Your task to perform on an android device: open app "Microsoft Excel" (install if not already installed), go to login, and select forgot password Image 0: 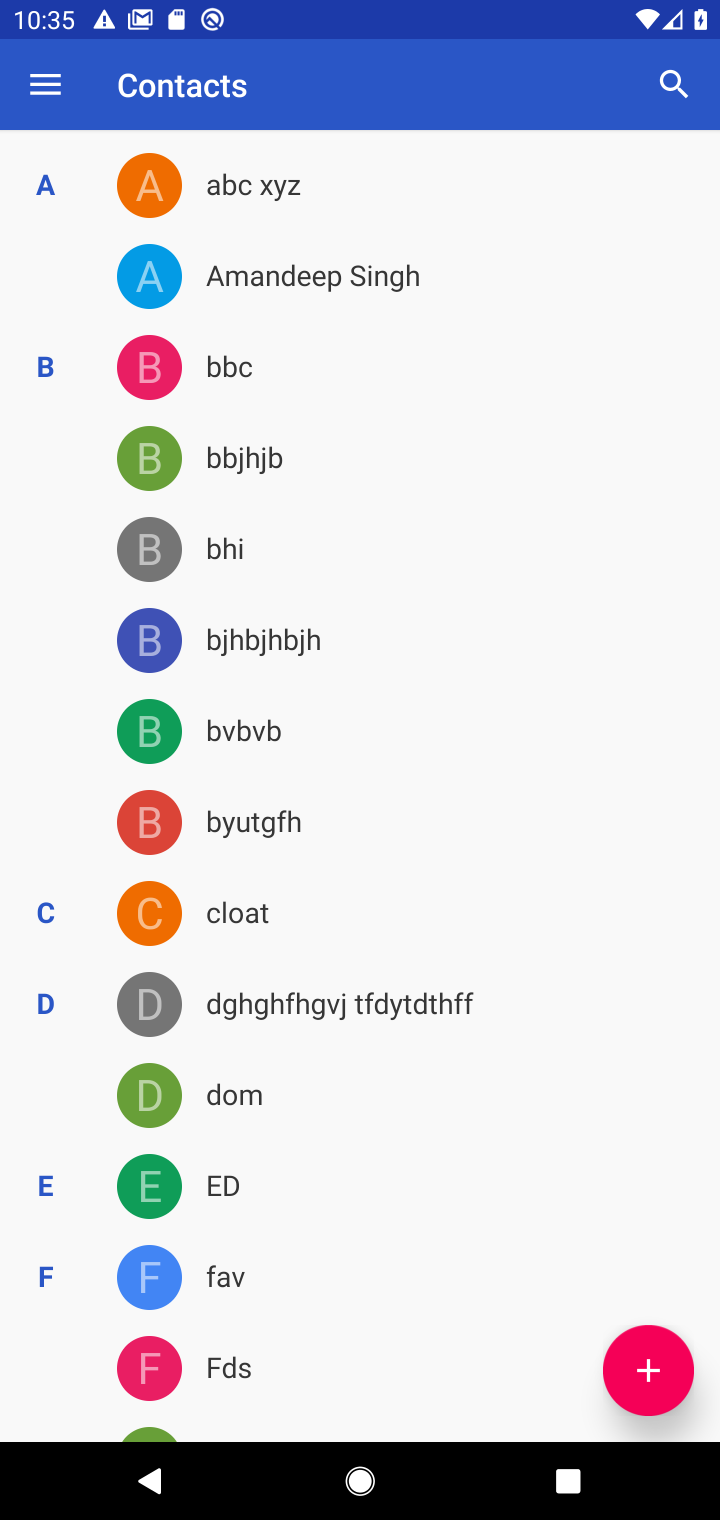
Step 0: press home button
Your task to perform on an android device: open app "Microsoft Excel" (install if not already installed), go to login, and select forgot password Image 1: 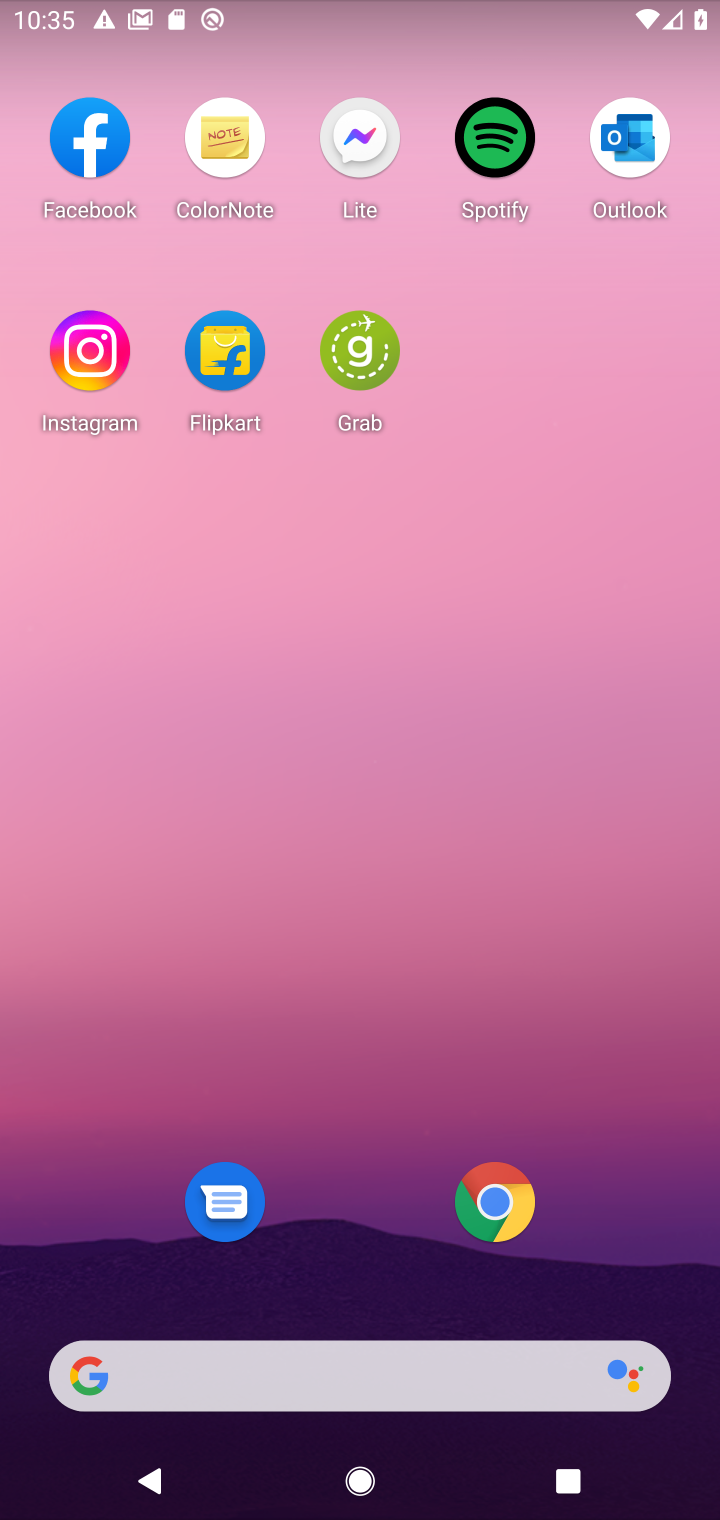
Step 1: drag from (396, 1135) to (368, 20)
Your task to perform on an android device: open app "Microsoft Excel" (install if not already installed), go to login, and select forgot password Image 2: 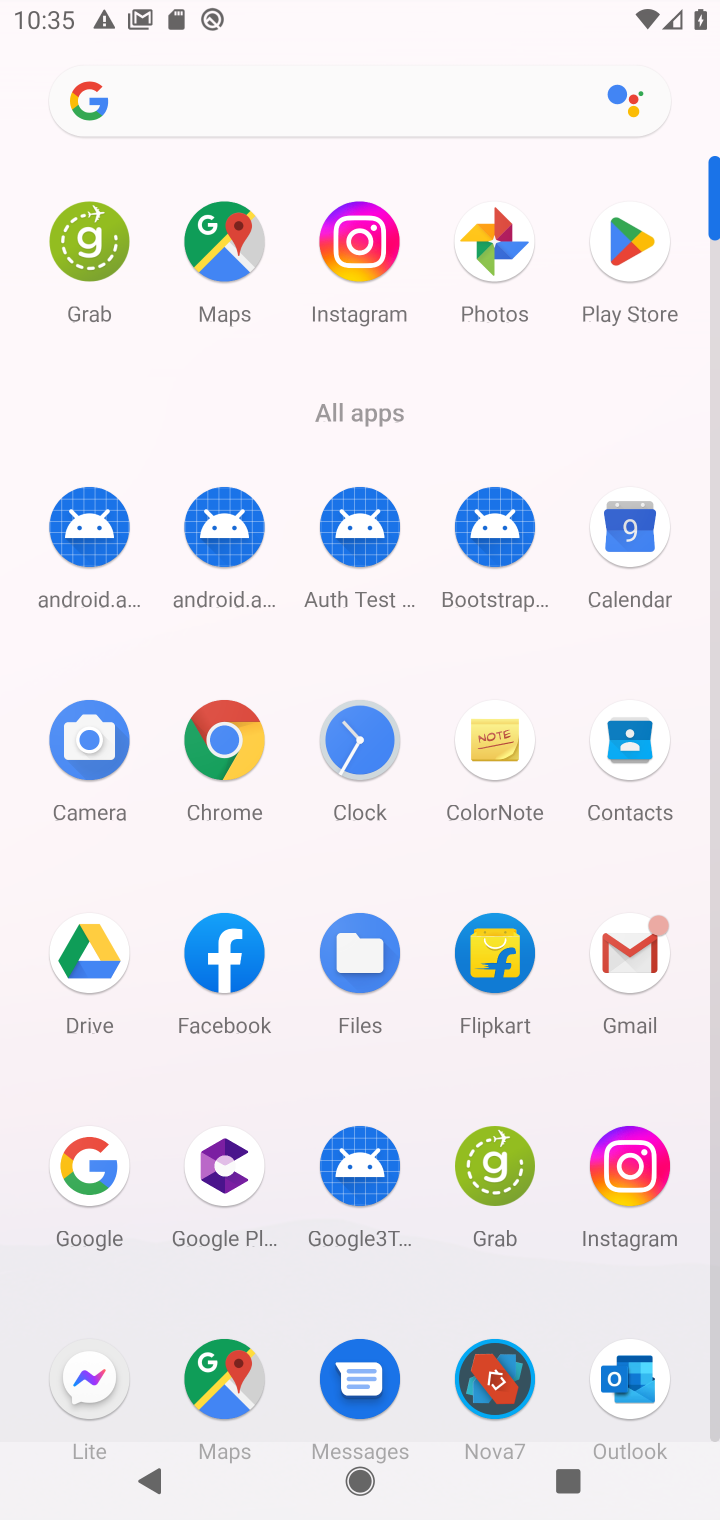
Step 2: click (615, 255)
Your task to perform on an android device: open app "Microsoft Excel" (install if not already installed), go to login, and select forgot password Image 3: 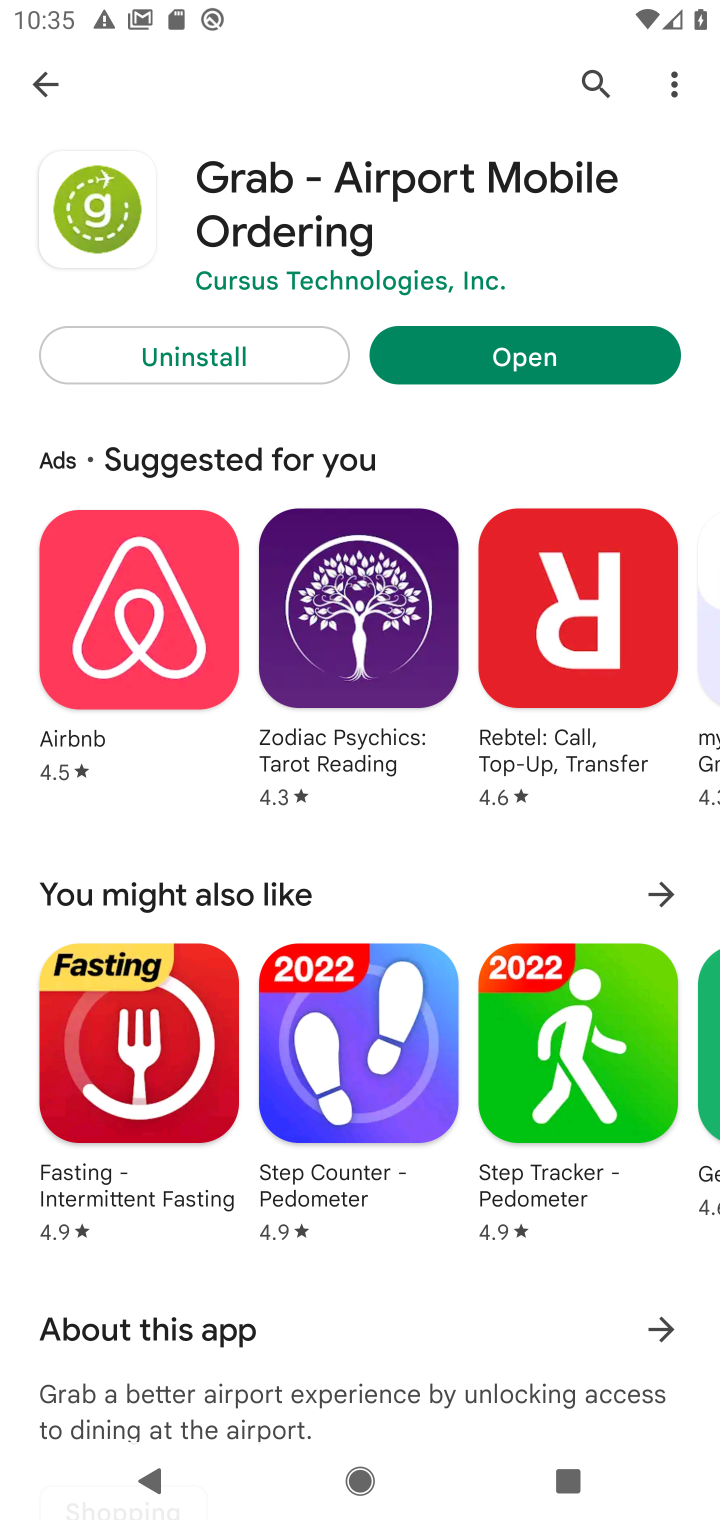
Step 3: click (588, 80)
Your task to perform on an android device: open app "Microsoft Excel" (install if not already installed), go to login, and select forgot password Image 4: 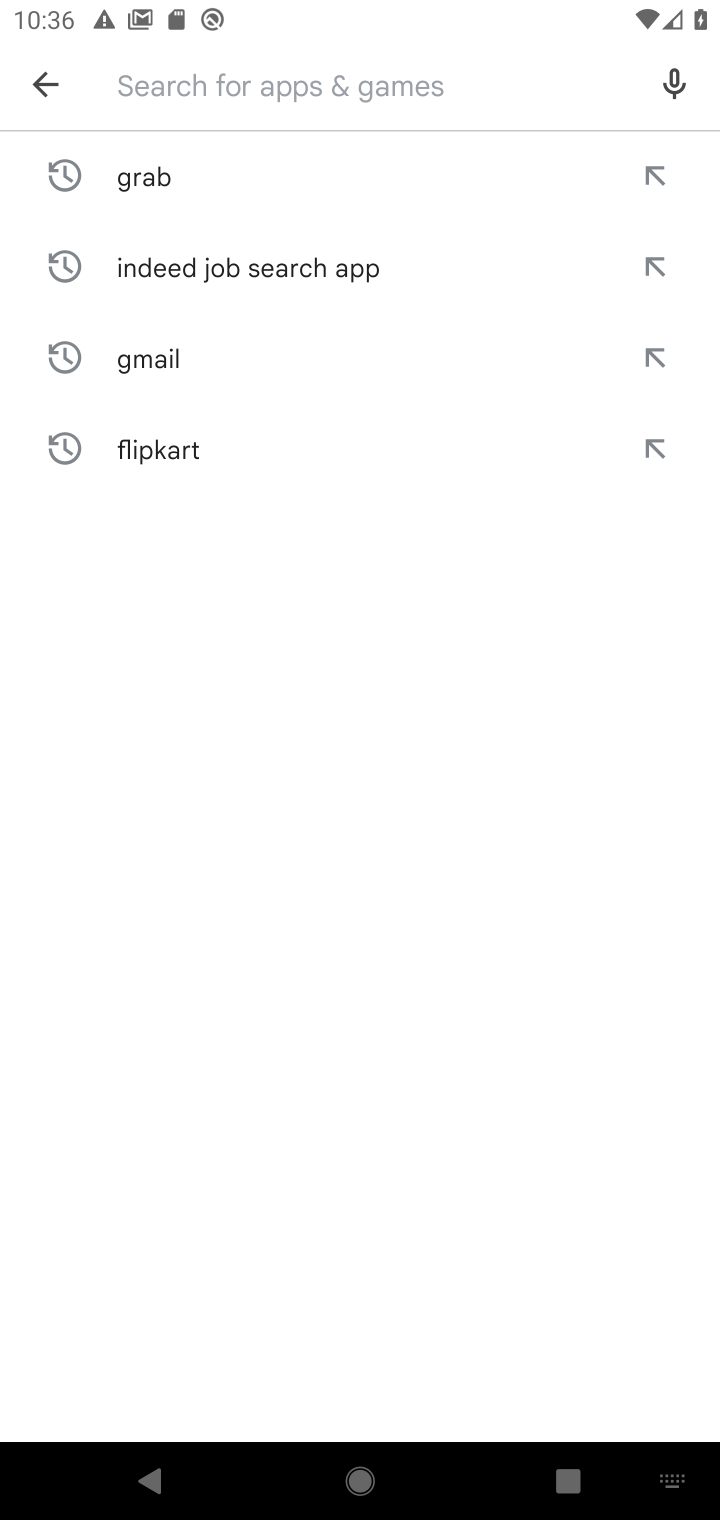
Step 4: type "microsoft excel"
Your task to perform on an android device: open app "Microsoft Excel" (install if not already installed), go to login, and select forgot password Image 5: 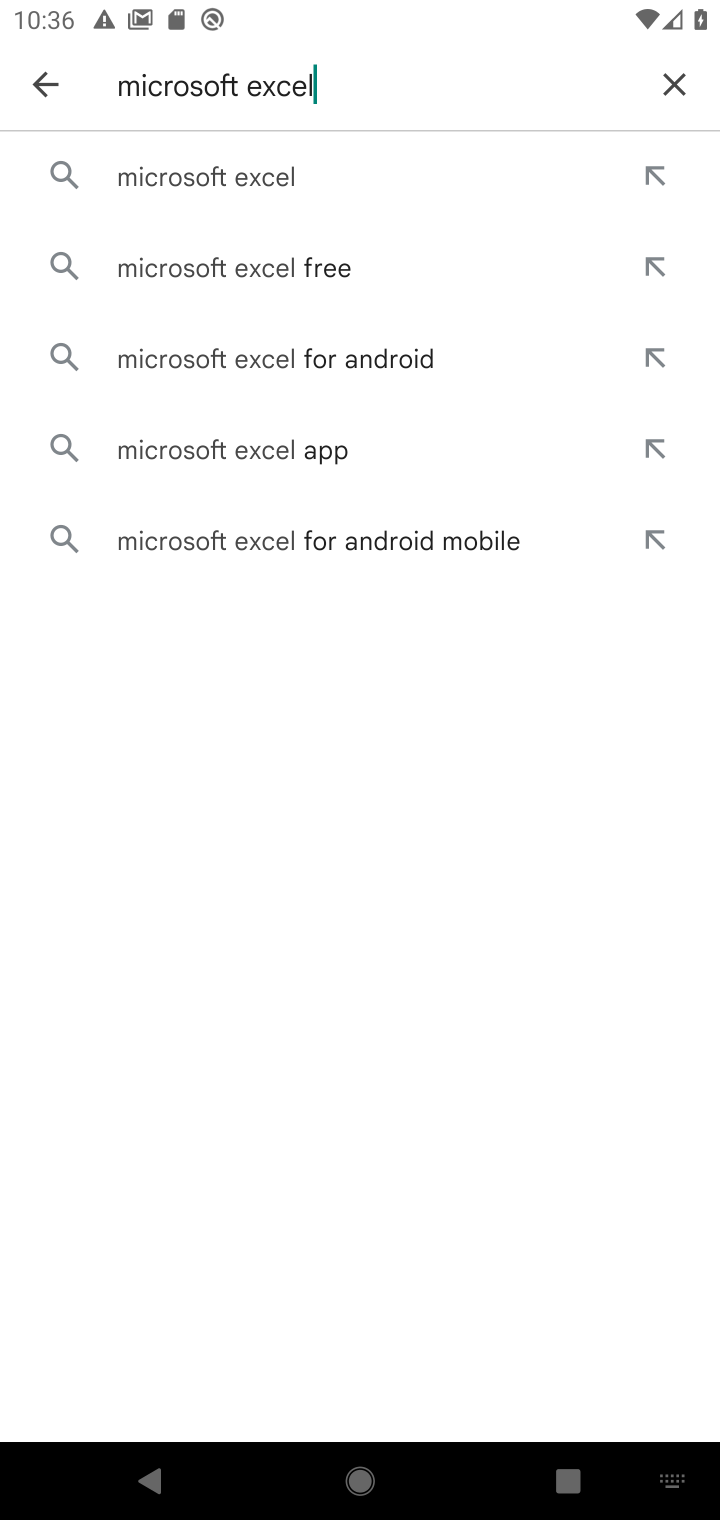
Step 5: click (215, 187)
Your task to perform on an android device: open app "Microsoft Excel" (install if not already installed), go to login, and select forgot password Image 6: 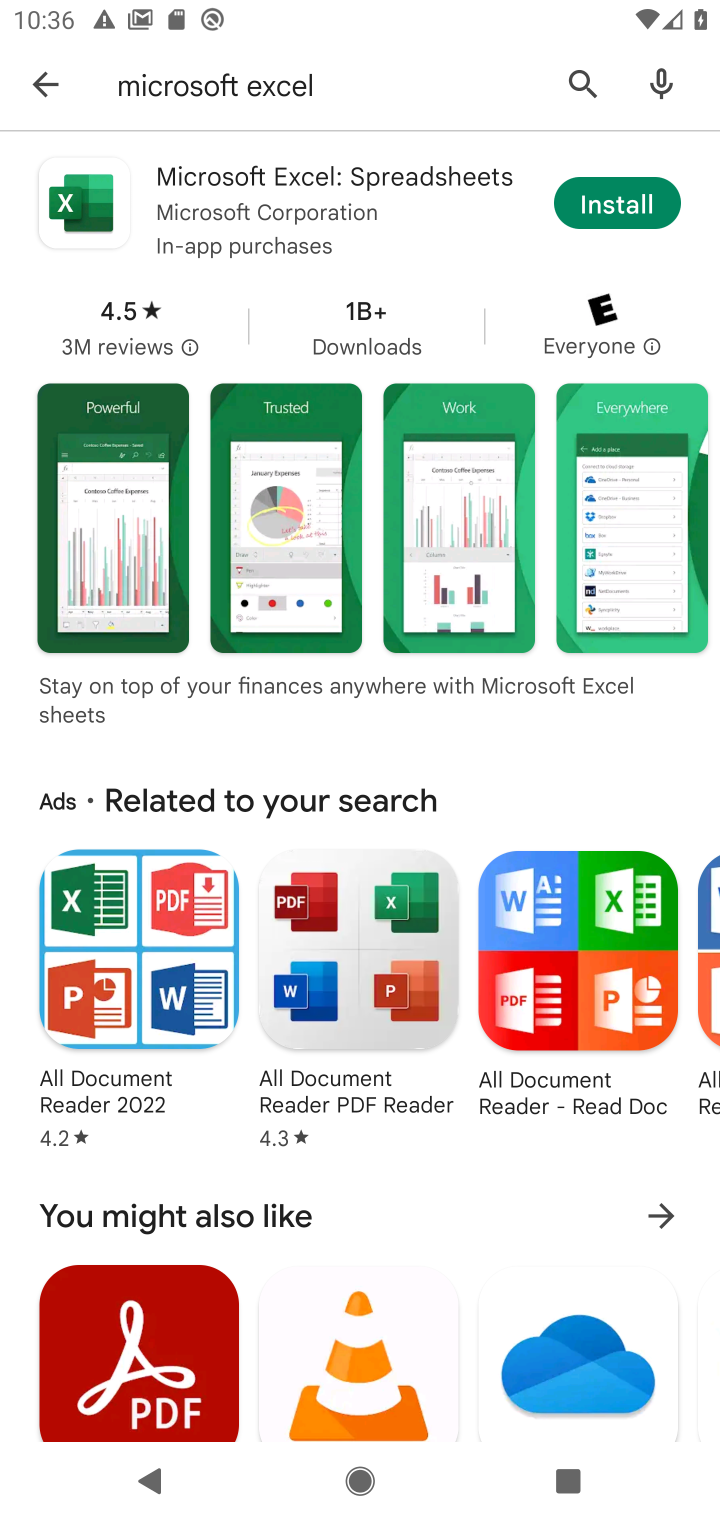
Step 6: click (592, 201)
Your task to perform on an android device: open app "Microsoft Excel" (install if not already installed), go to login, and select forgot password Image 7: 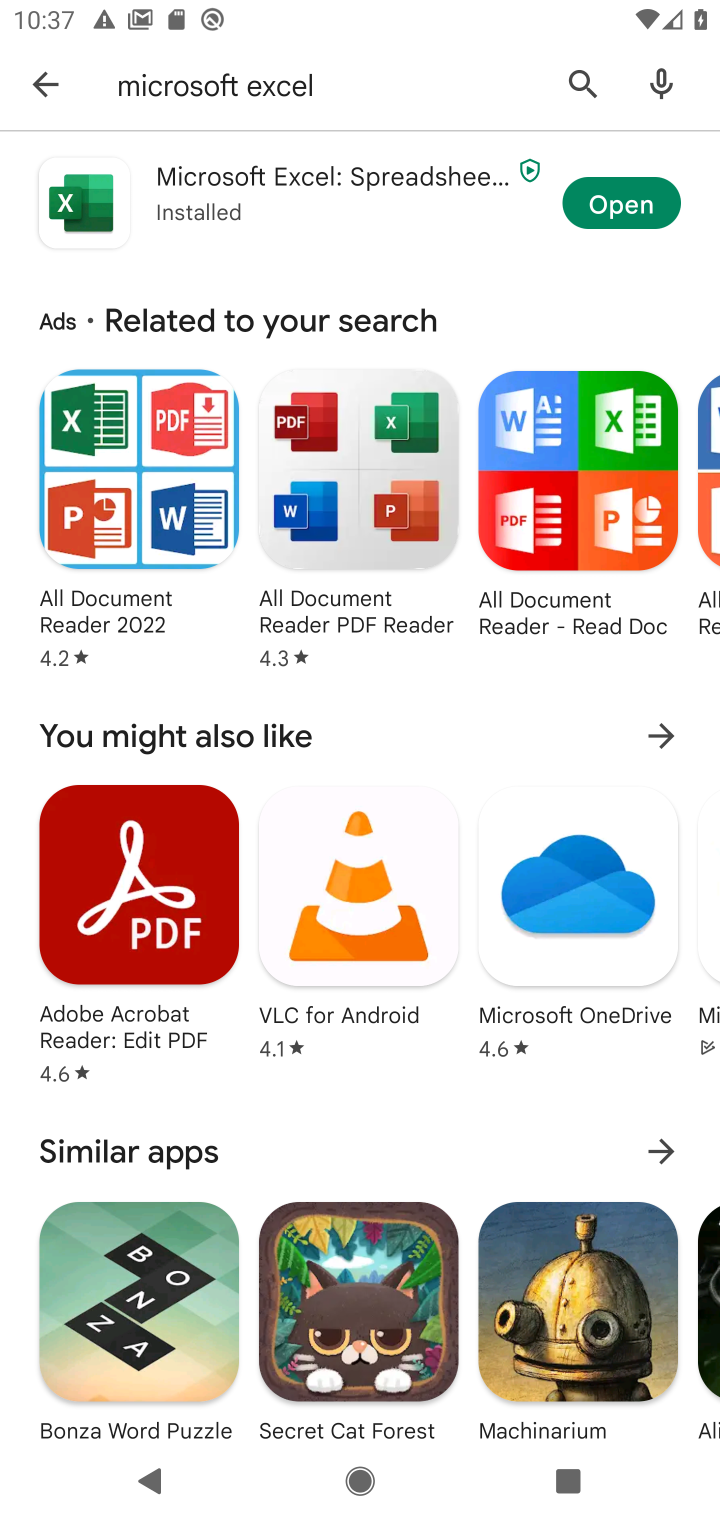
Step 7: click (635, 201)
Your task to perform on an android device: open app "Microsoft Excel" (install if not already installed), go to login, and select forgot password Image 8: 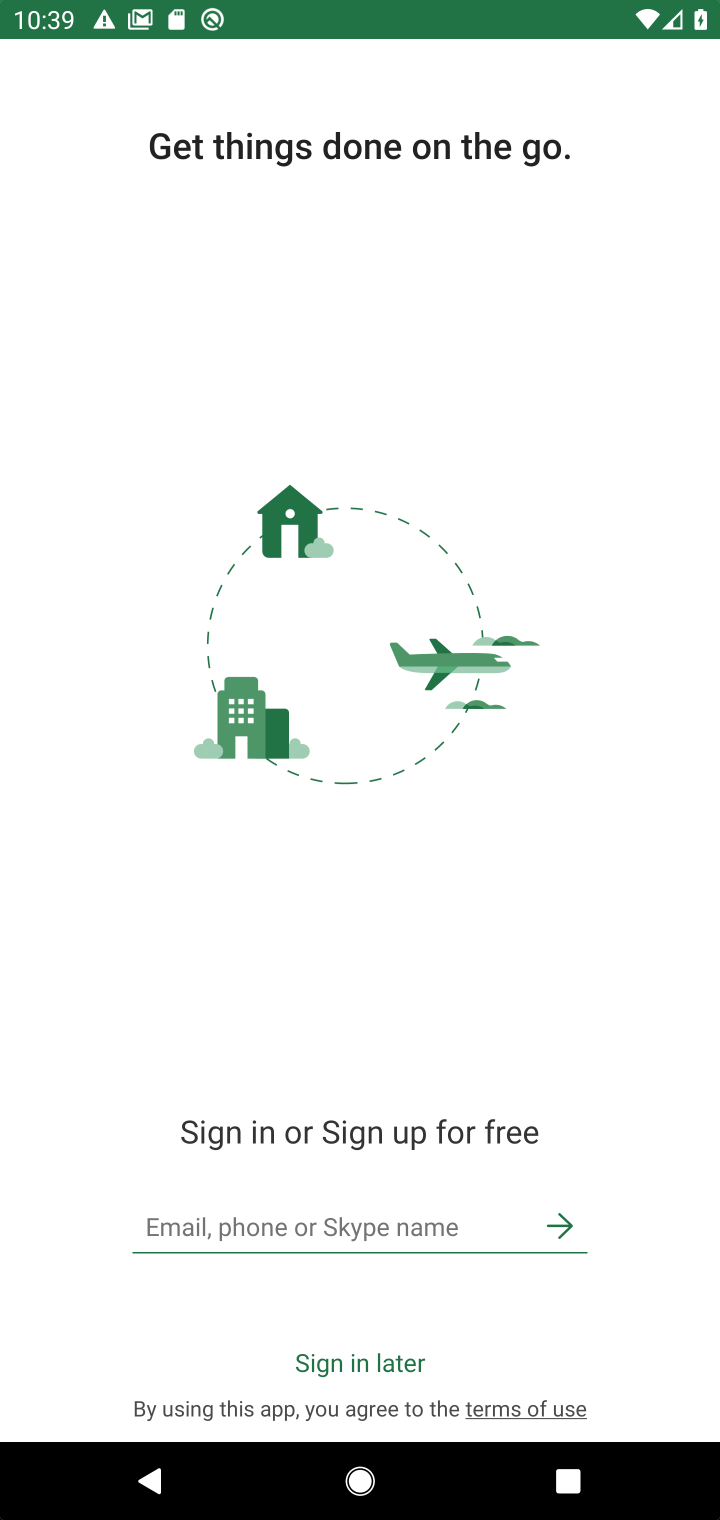
Step 8: click (564, 1231)
Your task to perform on an android device: open app "Microsoft Excel" (install if not already installed), go to login, and select forgot password Image 9: 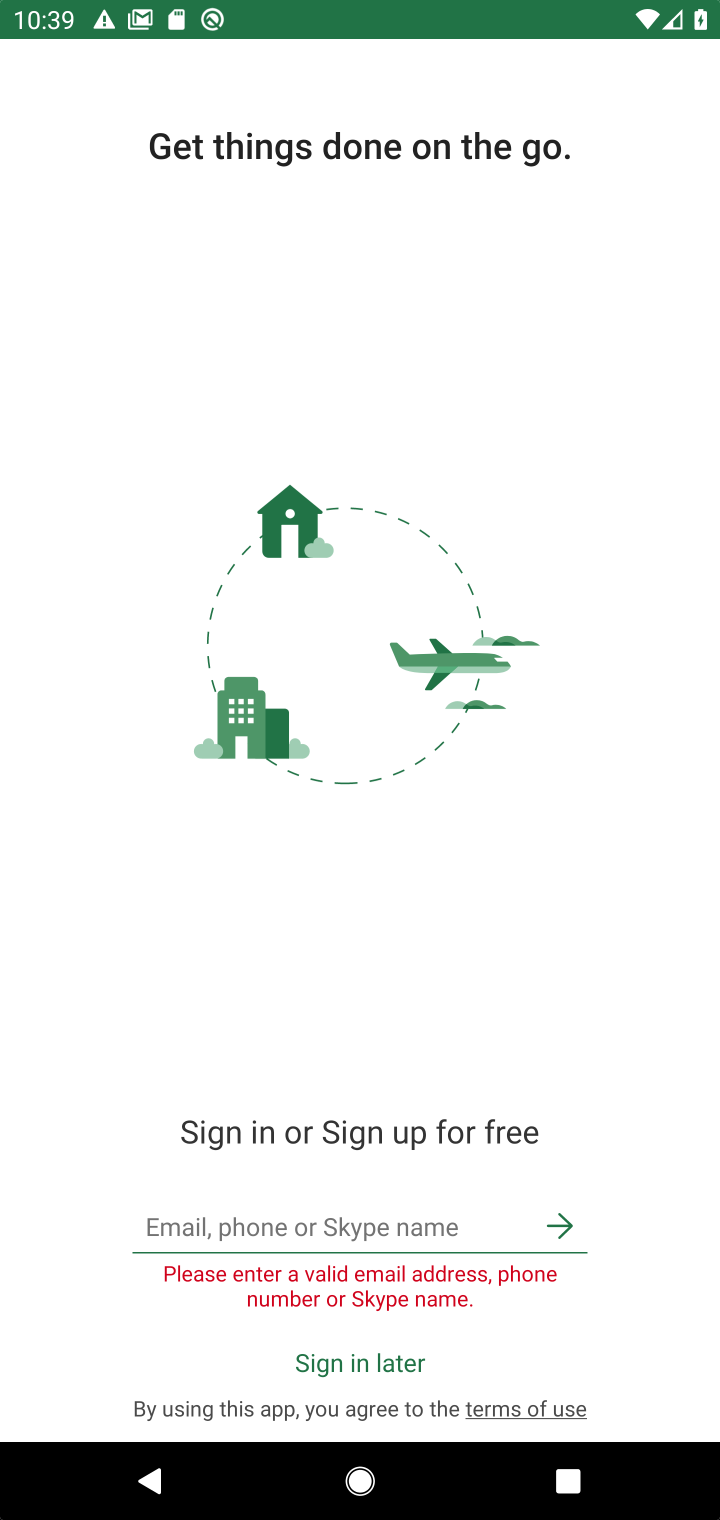
Step 9: task complete